Your task to perform on an android device: Go to Wikipedia Image 0: 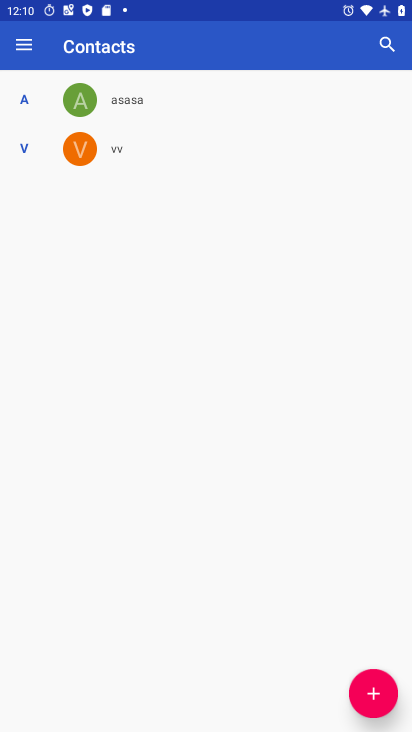
Step 0: press home button
Your task to perform on an android device: Go to Wikipedia Image 1: 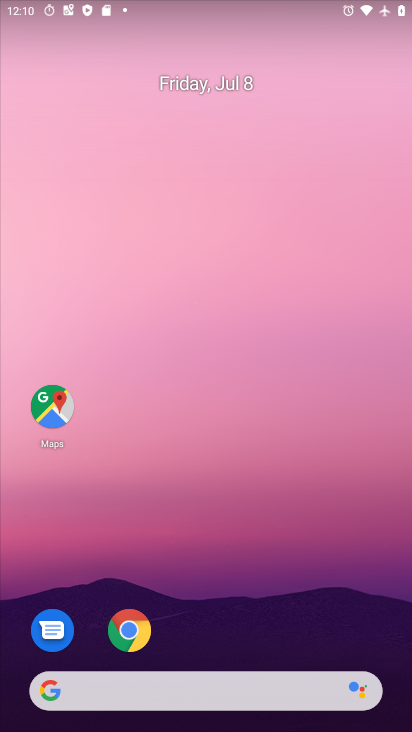
Step 1: drag from (245, 639) to (196, 175)
Your task to perform on an android device: Go to Wikipedia Image 2: 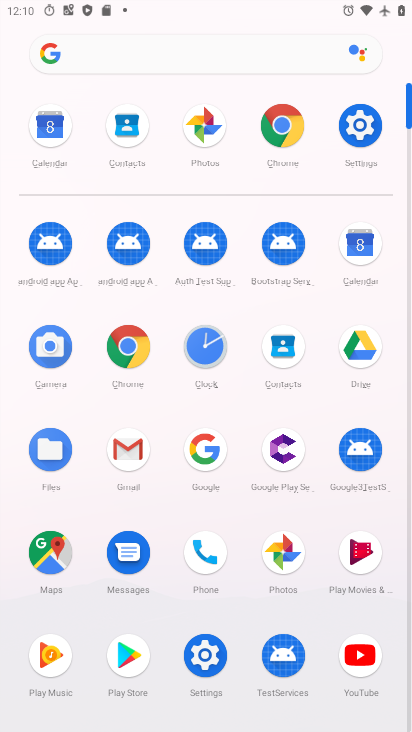
Step 2: click (297, 139)
Your task to perform on an android device: Go to Wikipedia Image 3: 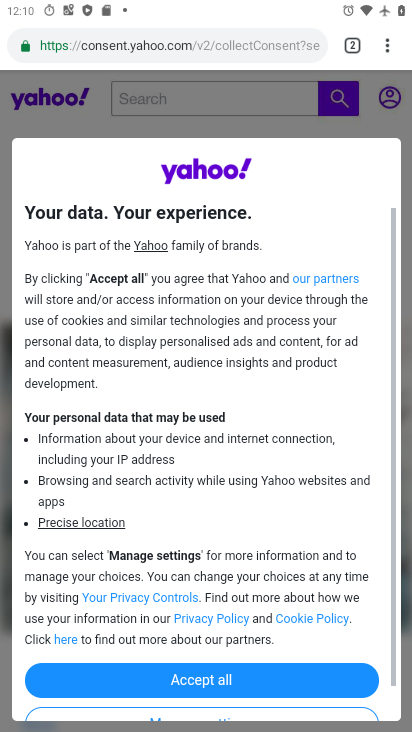
Step 3: click (348, 47)
Your task to perform on an android device: Go to Wikipedia Image 4: 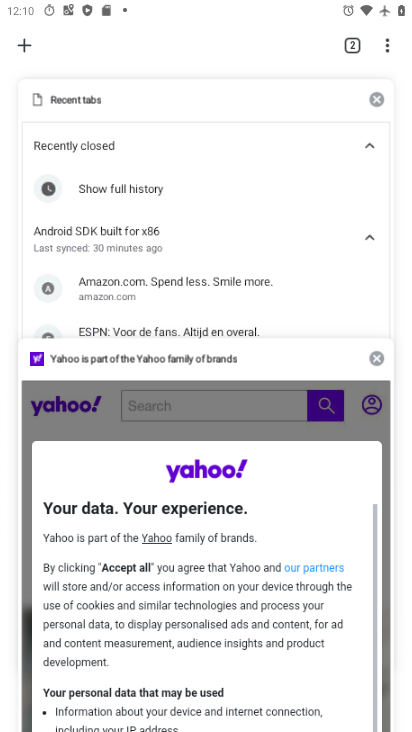
Step 4: click (23, 43)
Your task to perform on an android device: Go to Wikipedia Image 5: 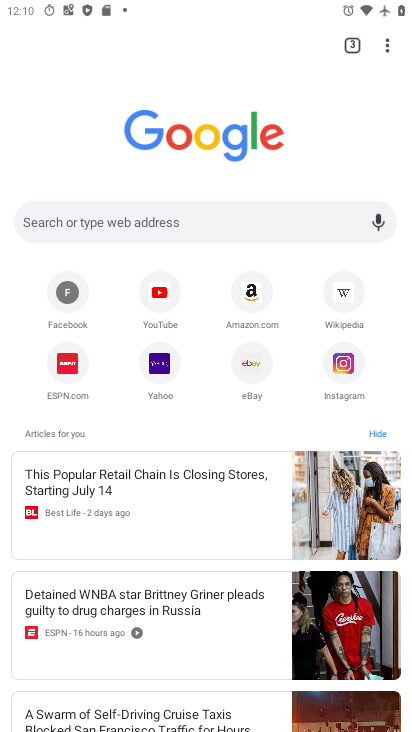
Step 5: click (350, 300)
Your task to perform on an android device: Go to Wikipedia Image 6: 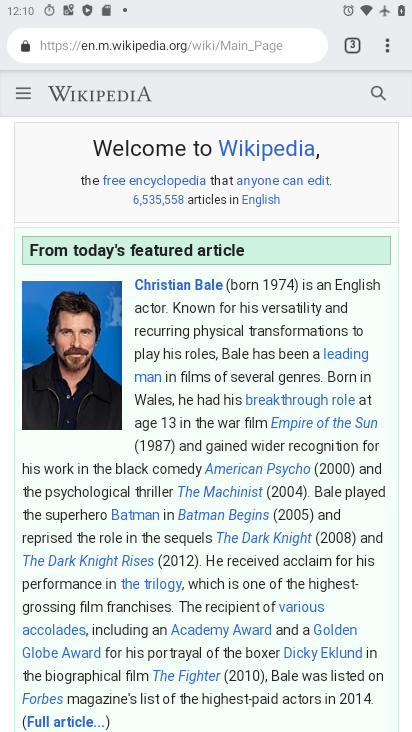
Step 6: task complete